Your task to perform on an android device: Go to display settings Image 0: 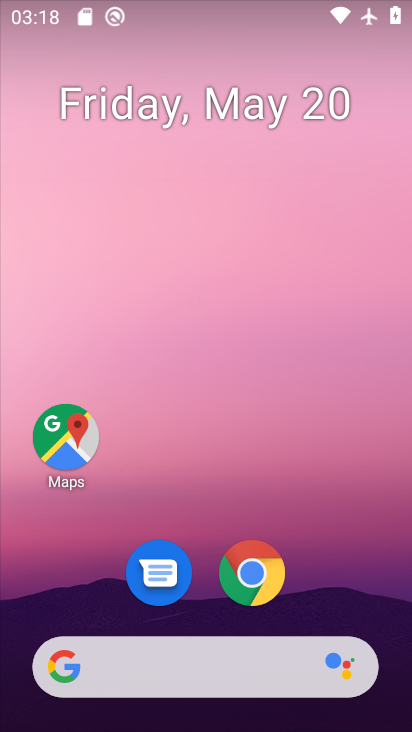
Step 0: drag from (202, 617) to (251, 179)
Your task to perform on an android device: Go to display settings Image 1: 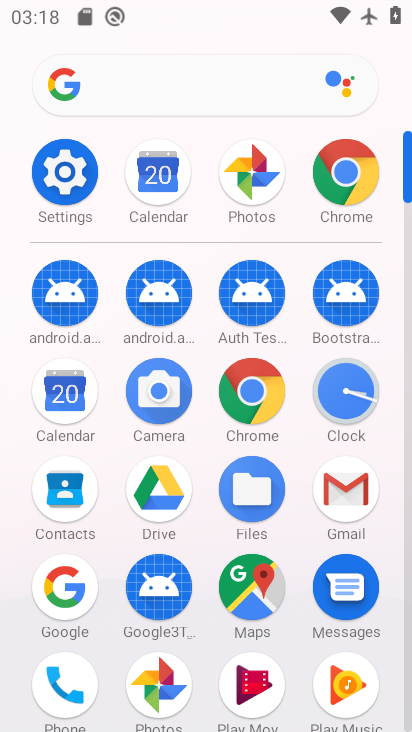
Step 1: click (81, 164)
Your task to perform on an android device: Go to display settings Image 2: 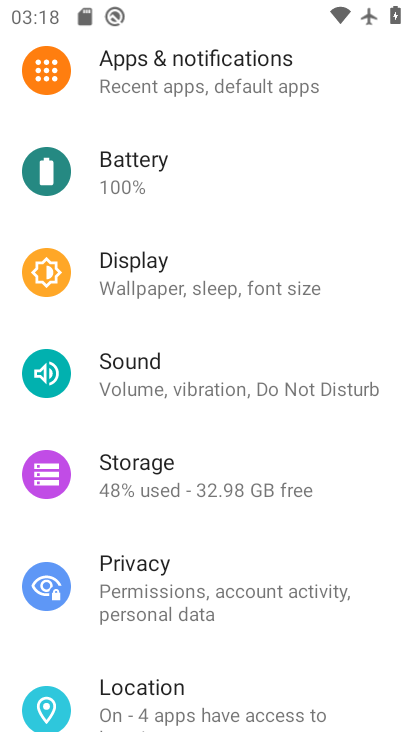
Step 2: click (148, 256)
Your task to perform on an android device: Go to display settings Image 3: 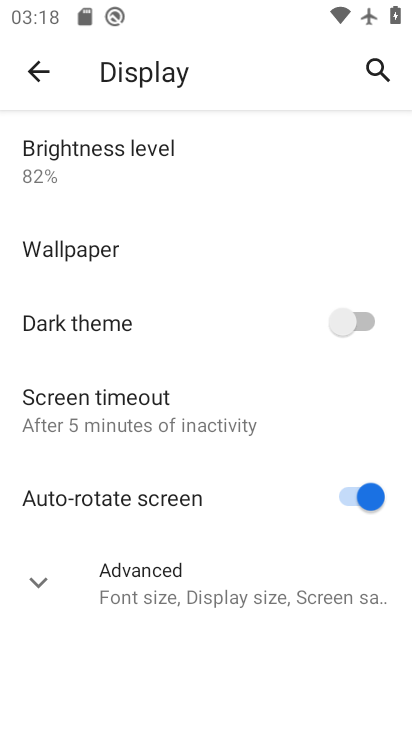
Step 3: task complete